Your task to perform on an android device: move a message to another label in the gmail app Image 0: 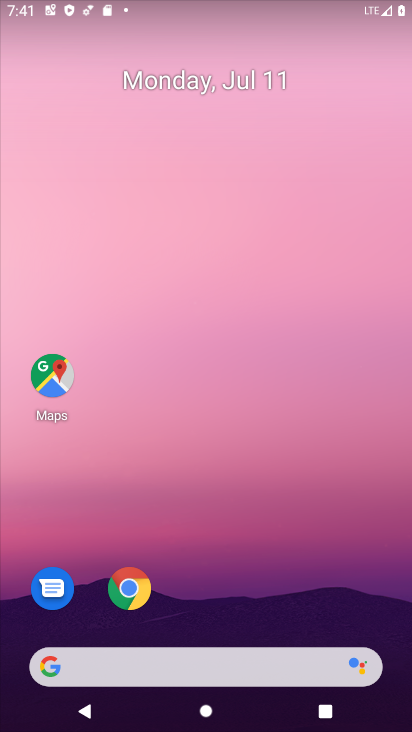
Step 0: drag from (325, 616) to (232, 69)
Your task to perform on an android device: move a message to another label in the gmail app Image 1: 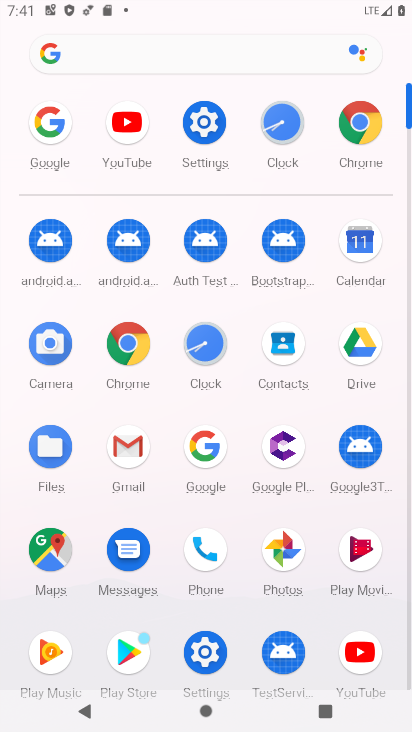
Step 1: click (129, 444)
Your task to perform on an android device: move a message to another label in the gmail app Image 2: 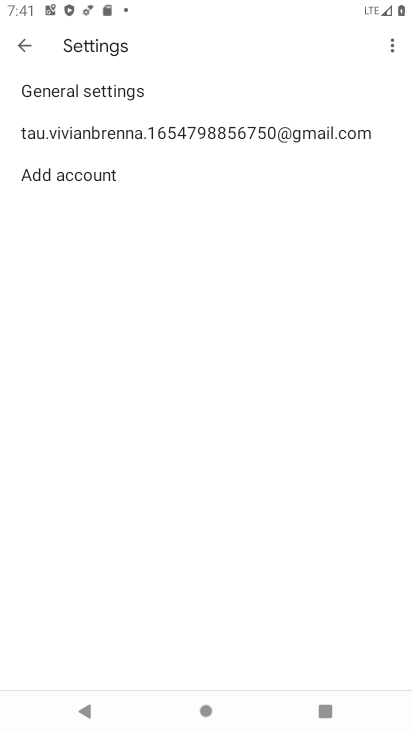
Step 2: press back button
Your task to perform on an android device: move a message to another label in the gmail app Image 3: 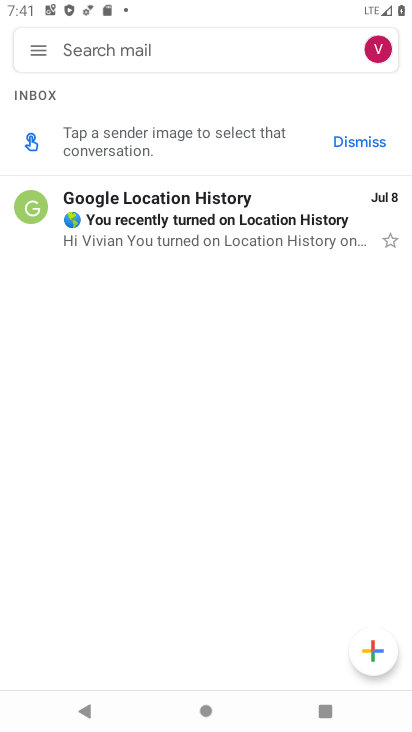
Step 3: click (194, 215)
Your task to perform on an android device: move a message to another label in the gmail app Image 4: 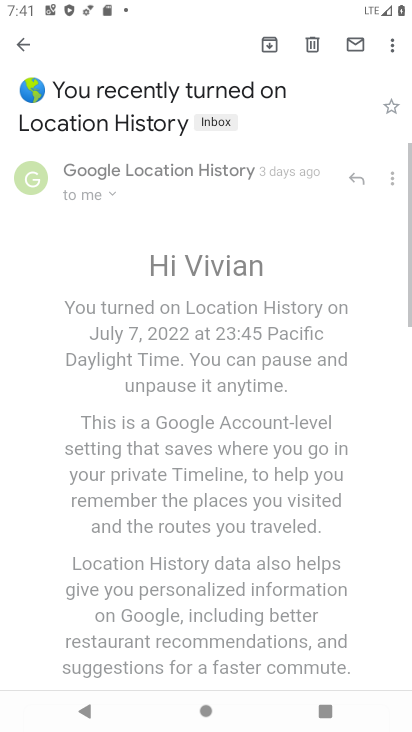
Step 4: click (396, 43)
Your task to perform on an android device: move a message to another label in the gmail app Image 5: 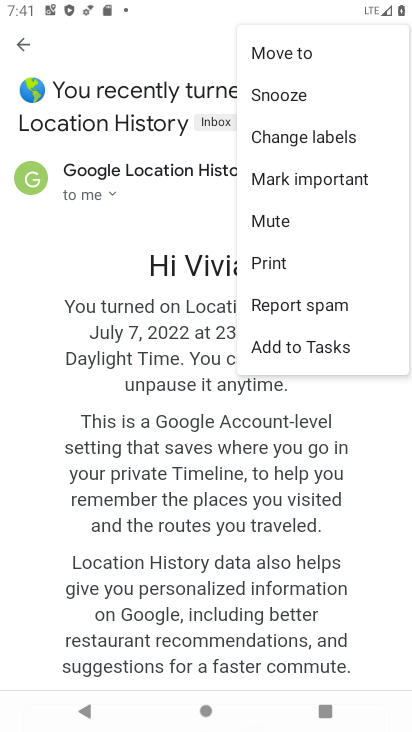
Step 5: task complete